Your task to perform on an android device: turn notification dots off Image 0: 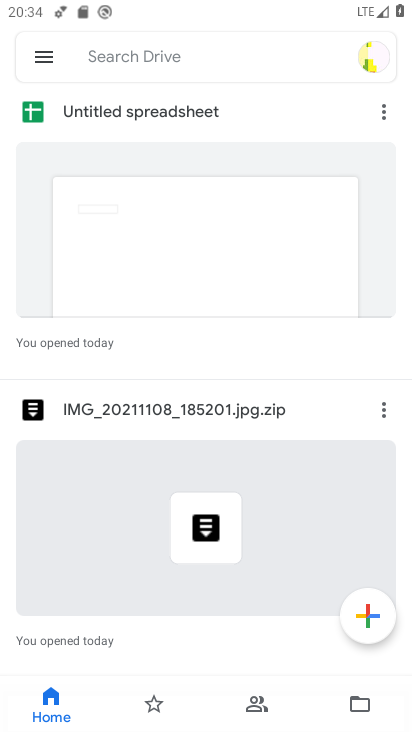
Step 0: drag from (260, 530) to (260, 183)
Your task to perform on an android device: turn notification dots off Image 1: 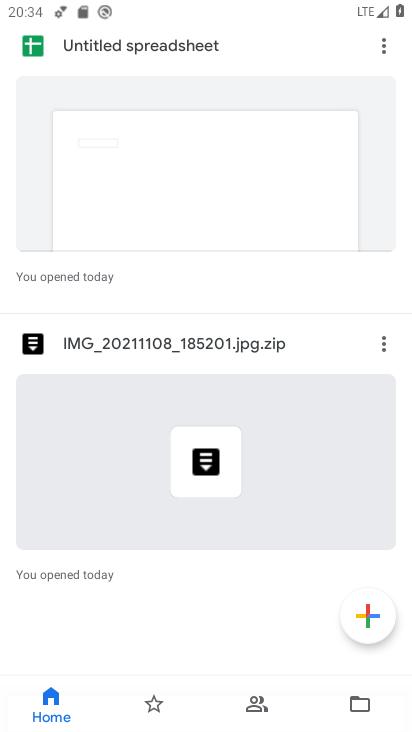
Step 1: drag from (258, 146) to (213, 632)
Your task to perform on an android device: turn notification dots off Image 2: 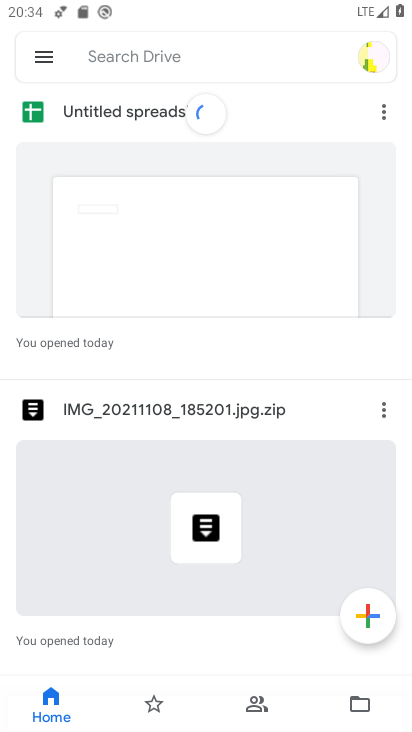
Step 2: click (39, 51)
Your task to perform on an android device: turn notification dots off Image 3: 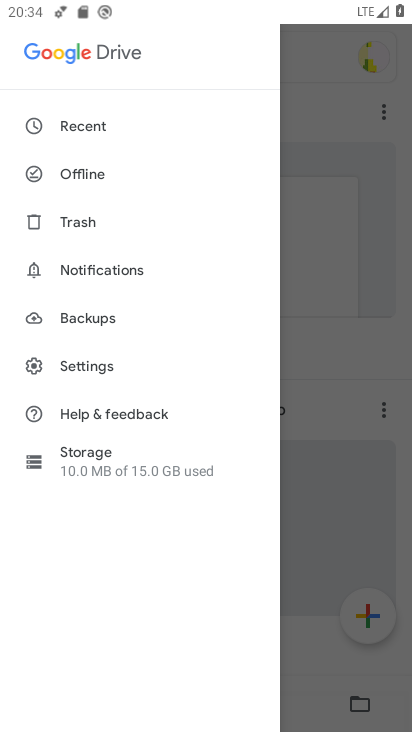
Step 3: click (87, 360)
Your task to perform on an android device: turn notification dots off Image 4: 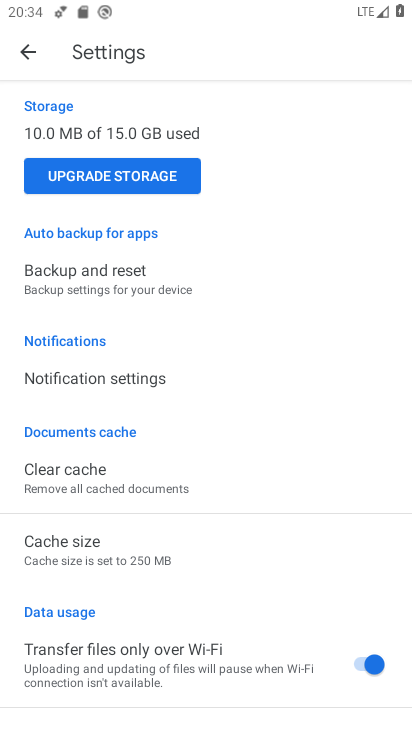
Step 4: press home button
Your task to perform on an android device: turn notification dots off Image 5: 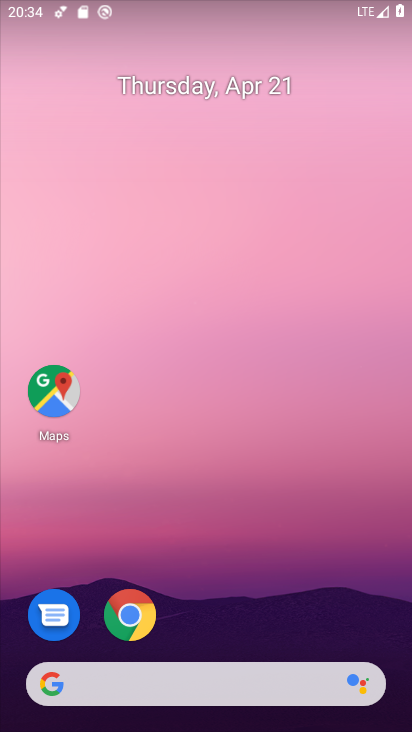
Step 5: drag from (194, 643) to (285, 124)
Your task to perform on an android device: turn notification dots off Image 6: 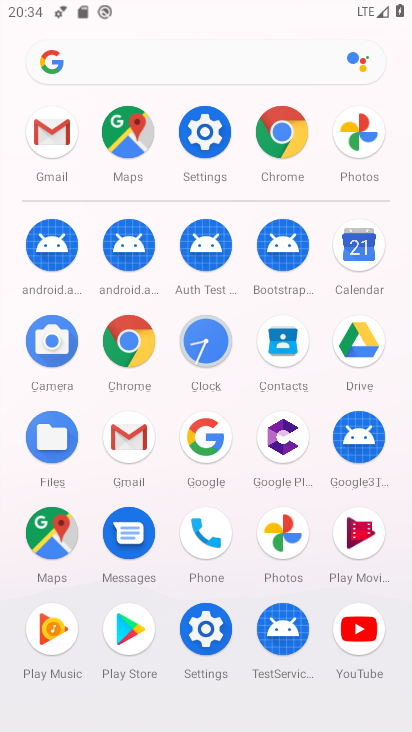
Step 6: click (204, 147)
Your task to perform on an android device: turn notification dots off Image 7: 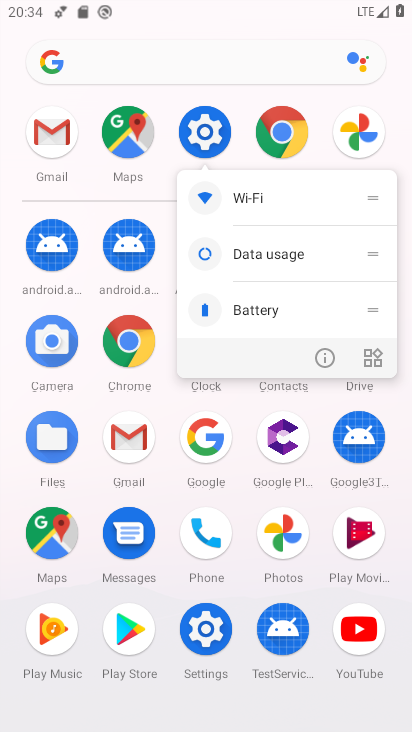
Step 7: click (328, 346)
Your task to perform on an android device: turn notification dots off Image 8: 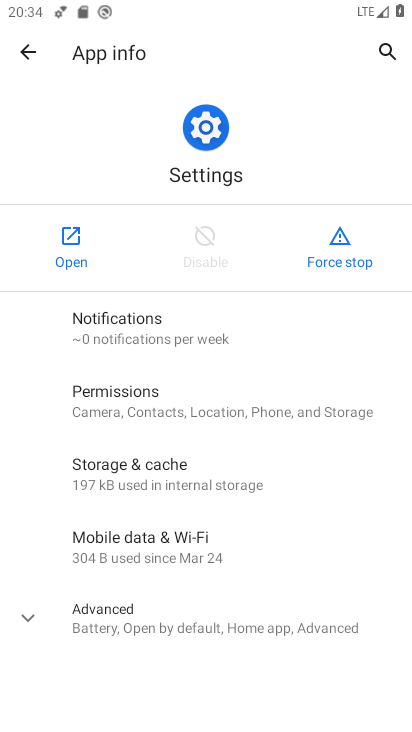
Step 8: click (61, 250)
Your task to perform on an android device: turn notification dots off Image 9: 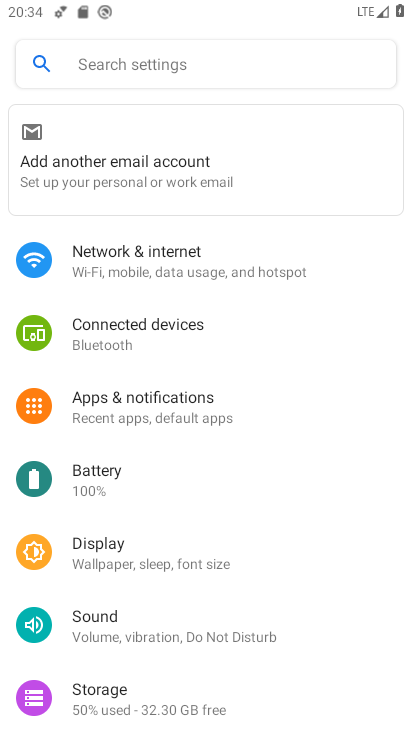
Step 9: click (153, 401)
Your task to perform on an android device: turn notification dots off Image 10: 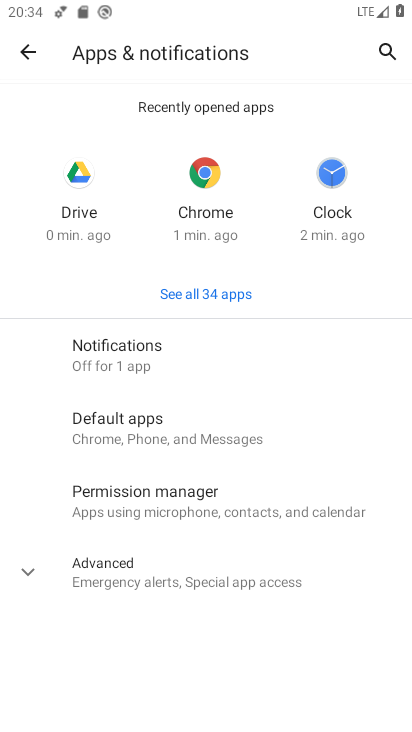
Step 10: click (161, 349)
Your task to perform on an android device: turn notification dots off Image 11: 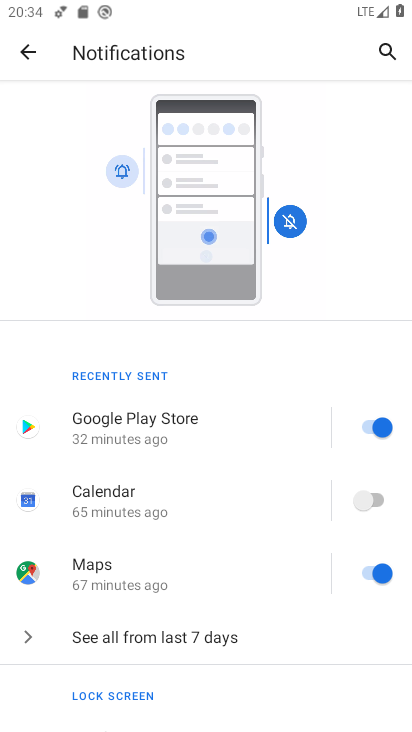
Step 11: drag from (222, 598) to (279, 73)
Your task to perform on an android device: turn notification dots off Image 12: 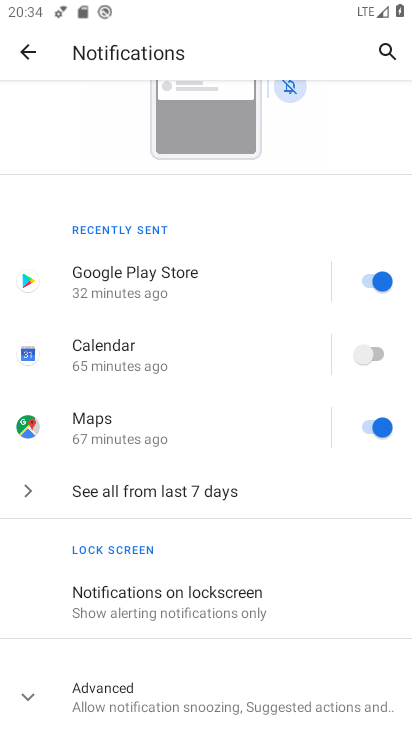
Step 12: click (188, 675)
Your task to perform on an android device: turn notification dots off Image 13: 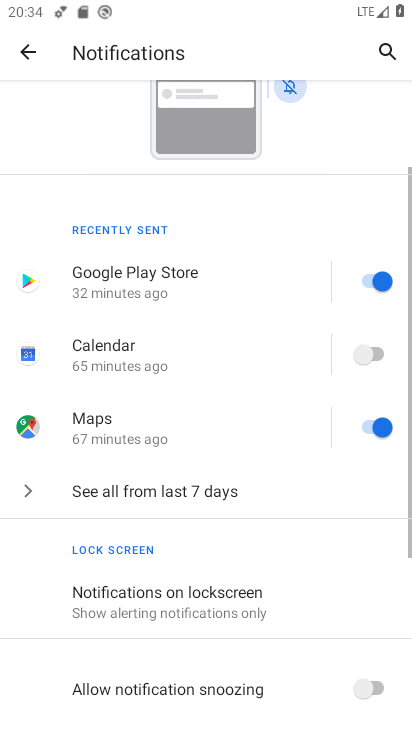
Step 13: drag from (187, 673) to (278, 154)
Your task to perform on an android device: turn notification dots off Image 14: 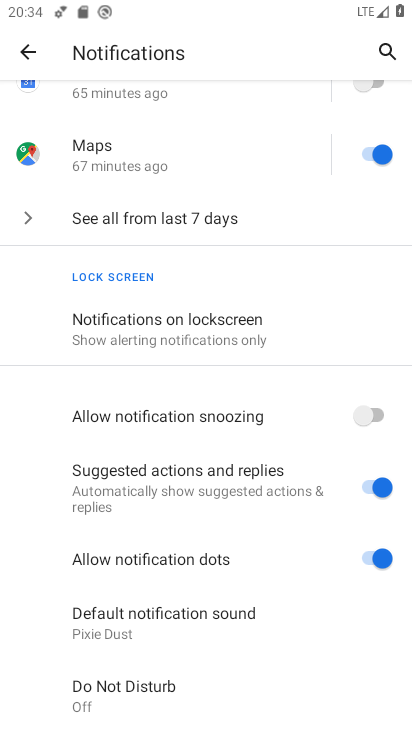
Step 14: drag from (193, 697) to (263, 360)
Your task to perform on an android device: turn notification dots off Image 15: 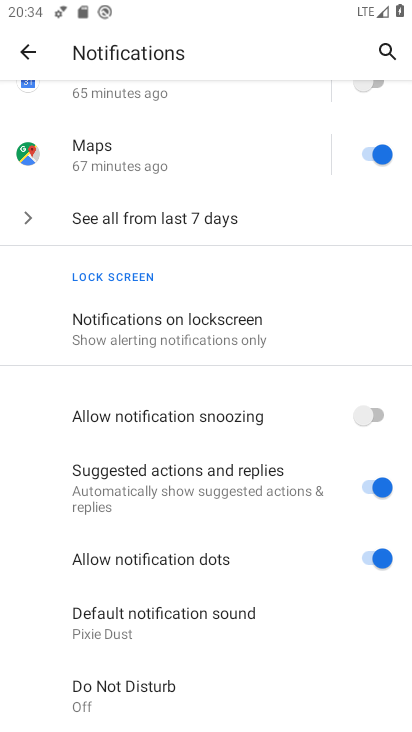
Step 15: click (367, 547)
Your task to perform on an android device: turn notification dots off Image 16: 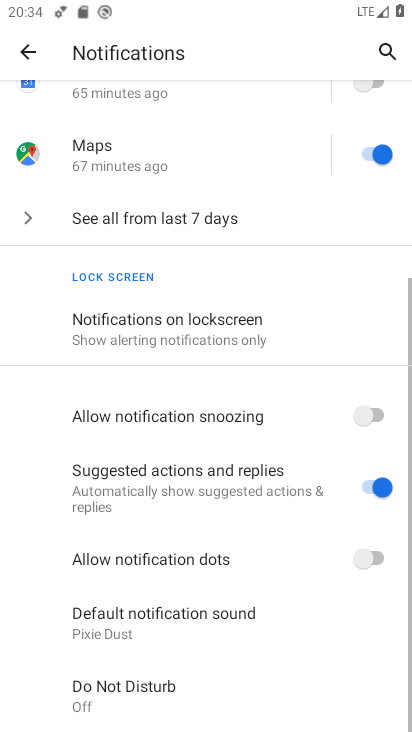
Step 16: task complete